Your task to perform on an android device: What is the news today? Image 0: 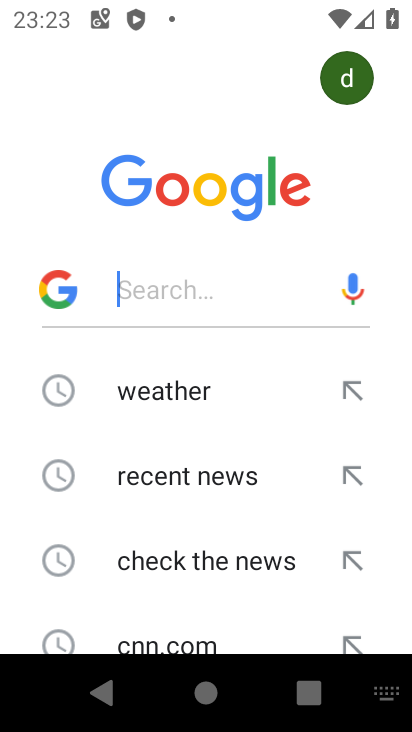
Step 0: press home button
Your task to perform on an android device: What is the news today? Image 1: 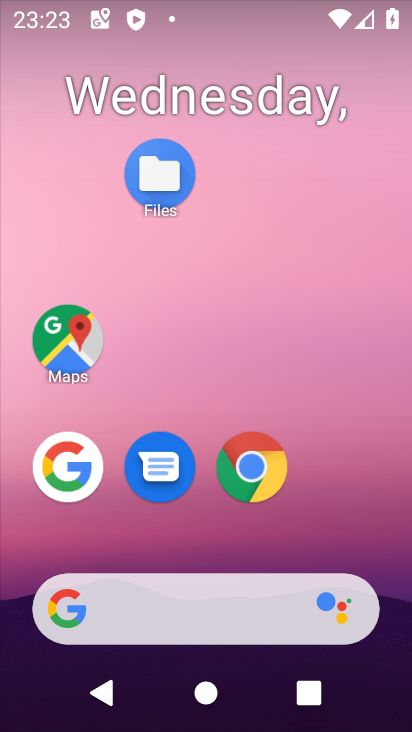
Step 1: drag from (213, 550) to (285, 723)
Your task to perform on an android device: What is the news today? Image 2: 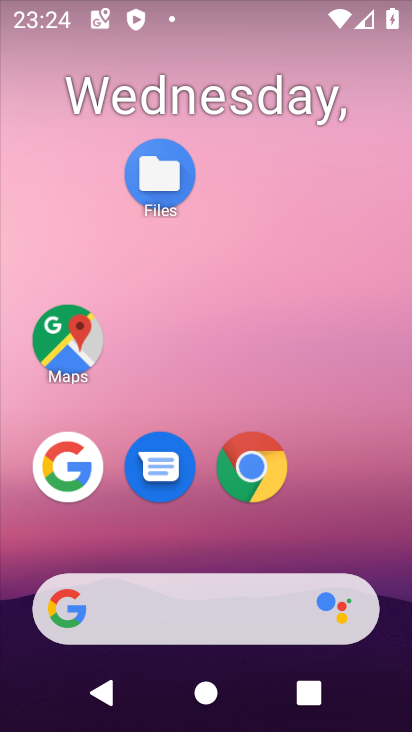
Step 2: drag from (199, 533) to (306, 39)
Your task to perform on an android device: What is the news today? Image 3: 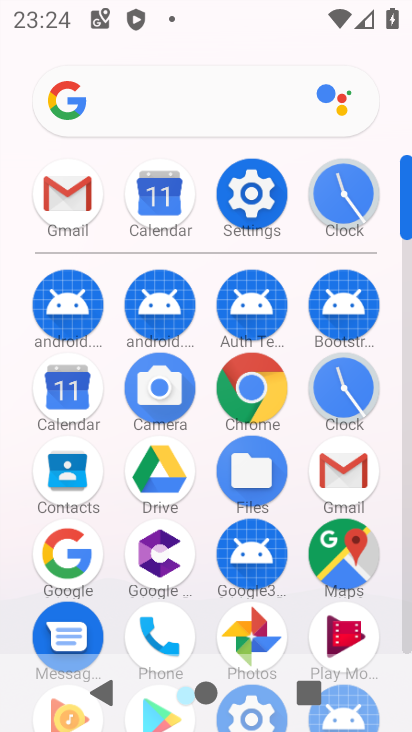
Step 3: click (54, 565)
Your task to perform on an android device: What is the news today? Image 4: 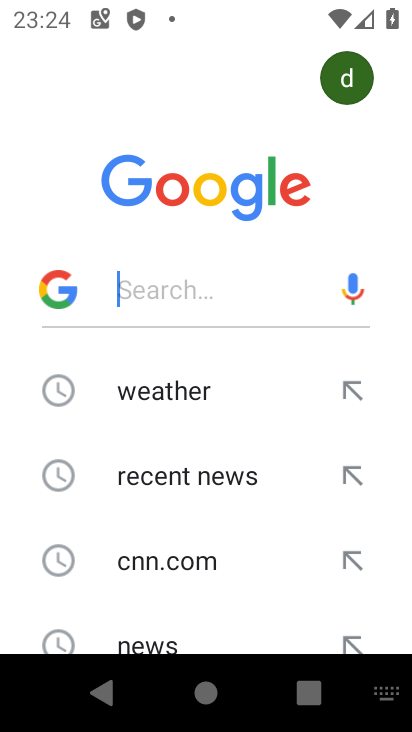
Step 4: drag from (250, 600) to (223, 471)
Your task to perform on an android device: What is the news today? Image 5: 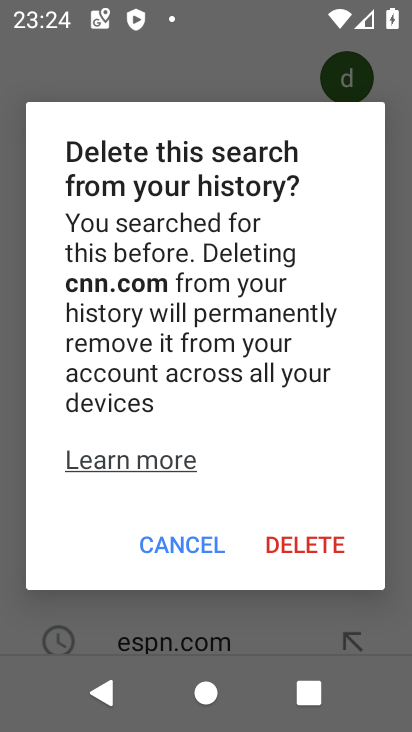
Step 5: click (168, 535)
Your task to perform on an android device: What is the news today? Image 6: 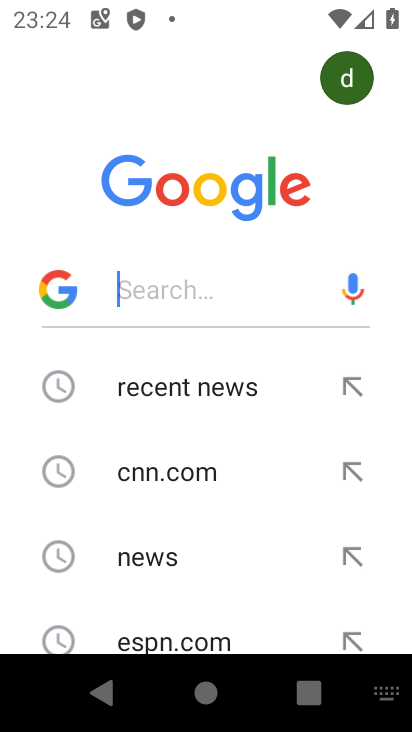
Step 6: click (168, 535)
Your task to perform on an android device: What is the news today? Image 7: 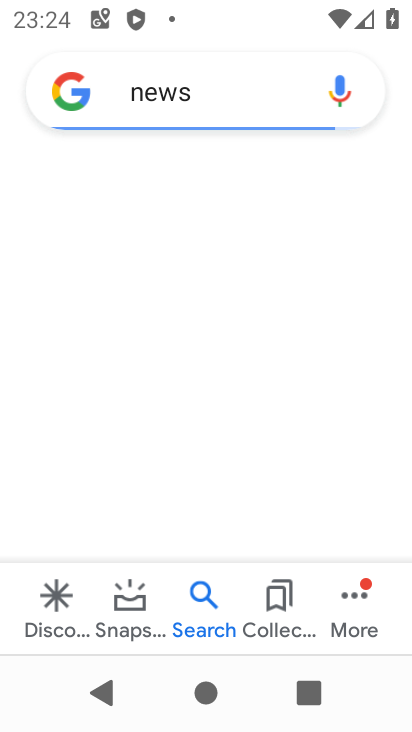
Step 7: task complete